Your task to perform on an android device: Go to Google Image 0: 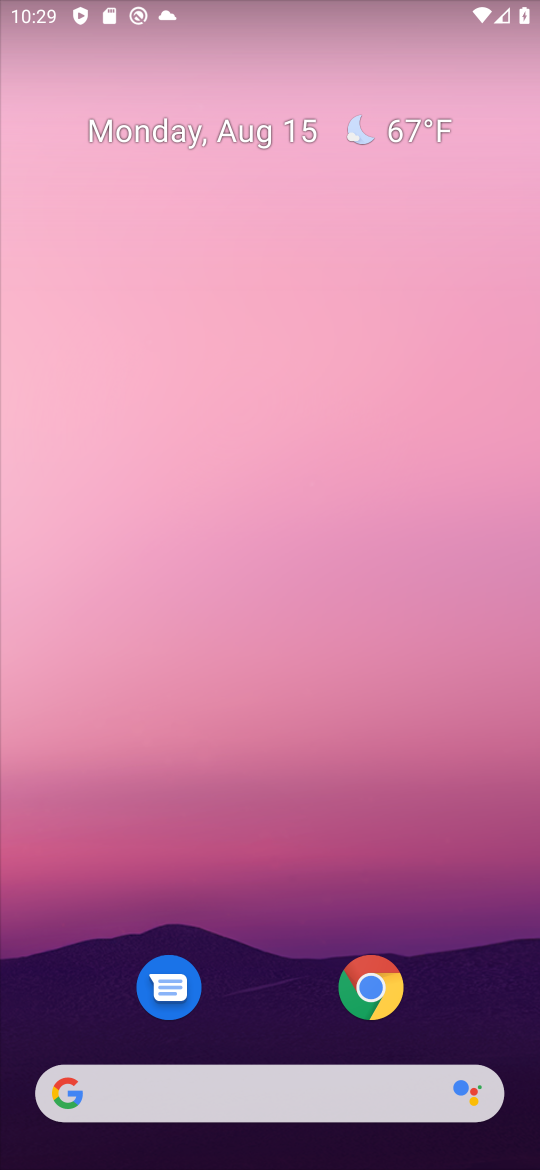
Step 0: drag from (291, 1047) to (501, 566)
Your task to perform on an android device: Go to Google Image 1: 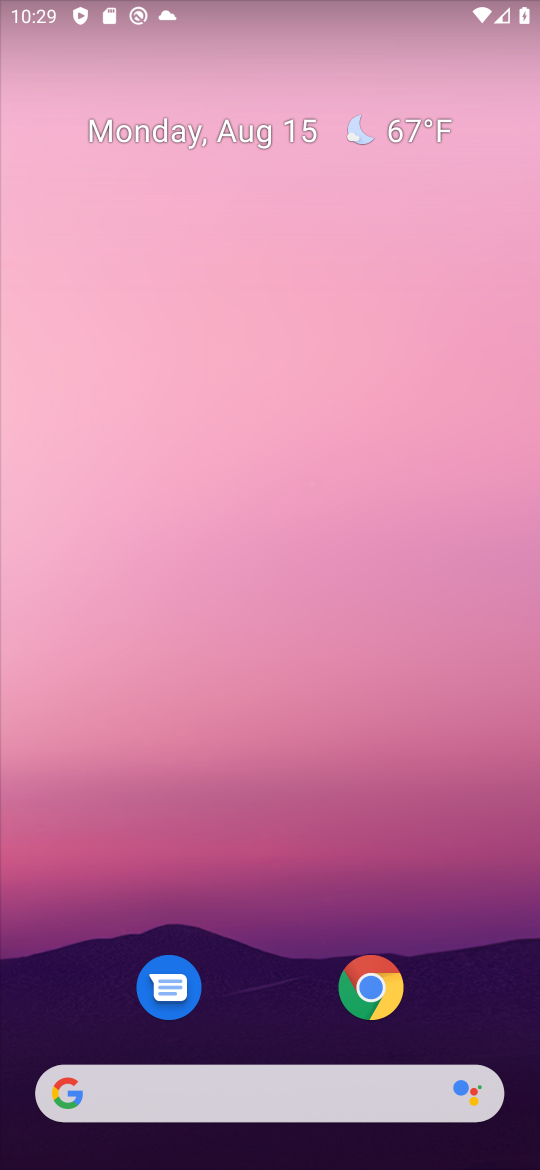
Step 1: drag from (264, 1020) to (244, 7)
Your task to perform on an android device: Go to Google Image 2: 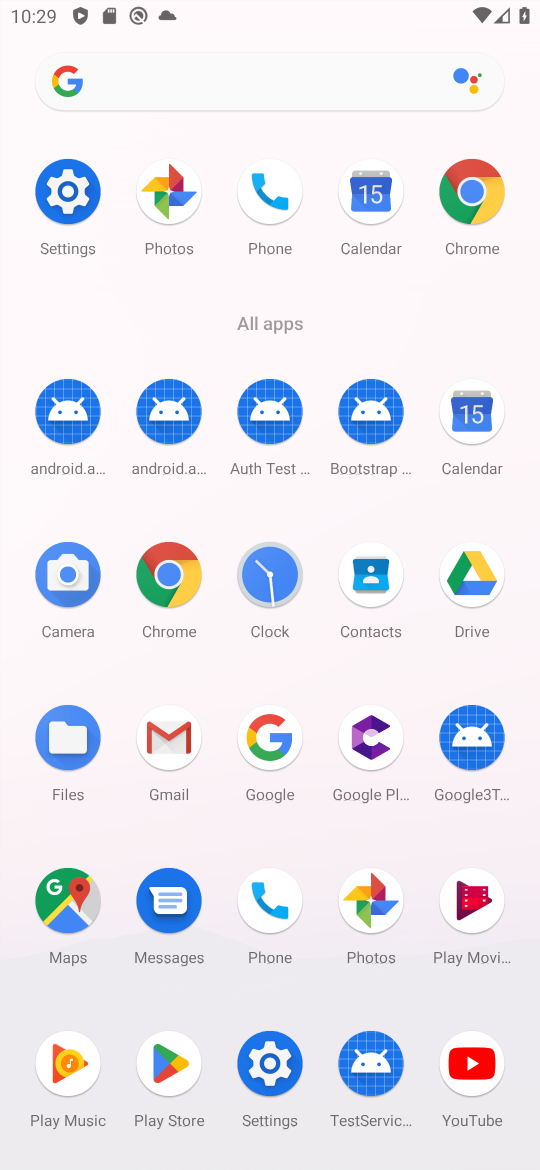
Step 2: click (274, 762)
Your task to perform on an android device: Go to Google Image 3: 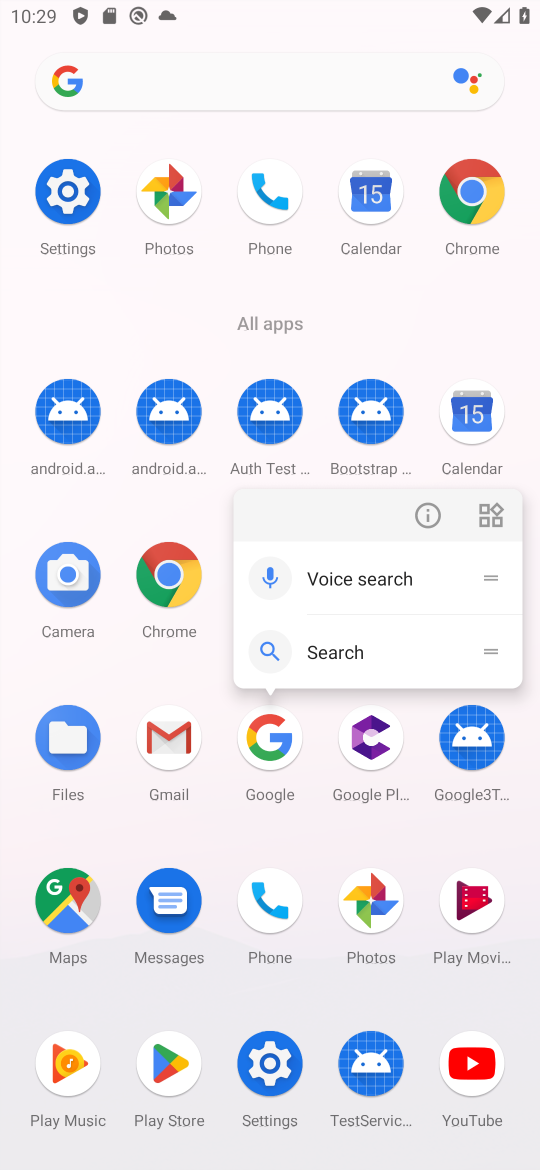
Step 3: click (259, 742)
Your task to perform on an android device: Go to Google Image 4: 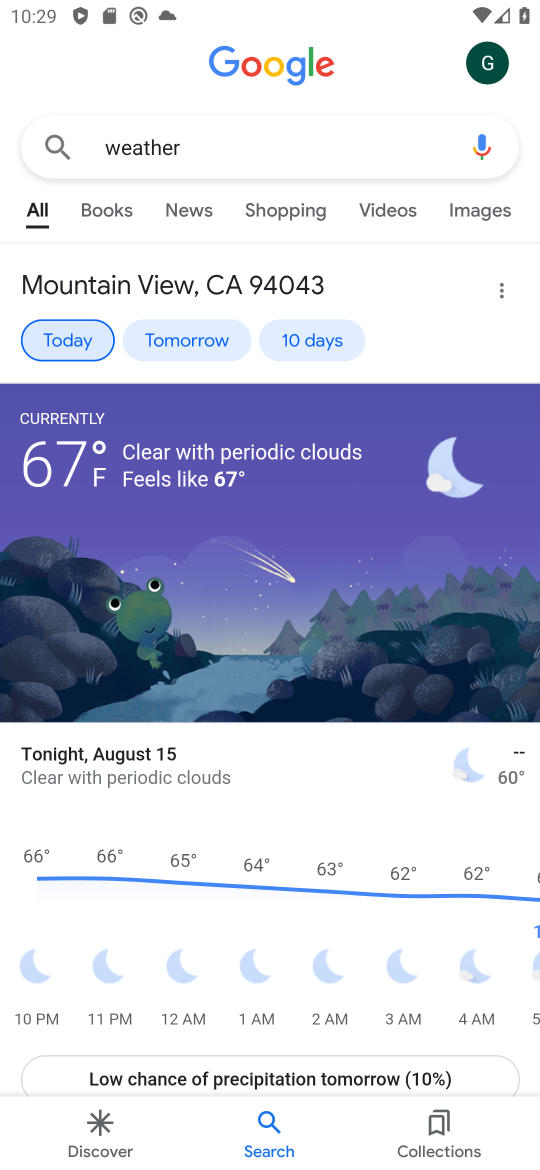
Step 4: task complete